Your task to perform on an android device: Open Chrome and go to settings Image 0: 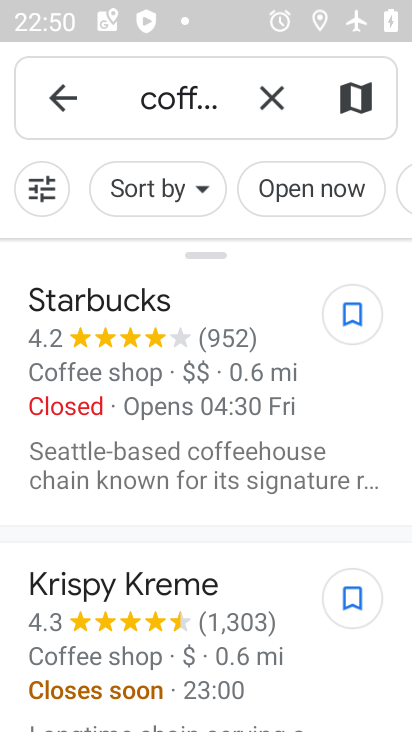
Step 0: press home button
Your task to perform on an android device: Open Chrome and go to settings Image 1: 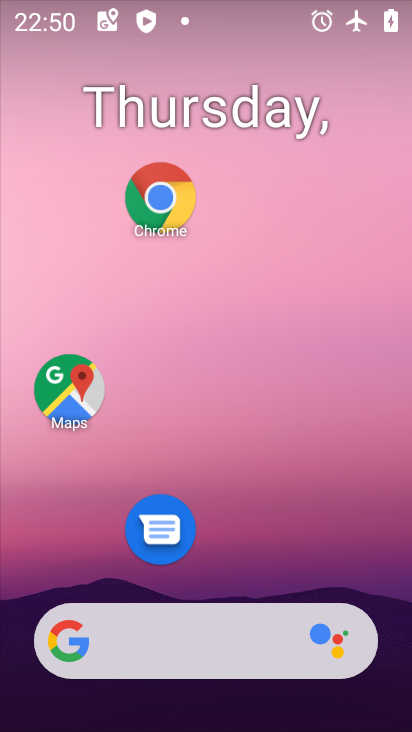
Step 1: click (161, 200)
Your task to perform on an android device: Open Chrome and go to settings Image 2: 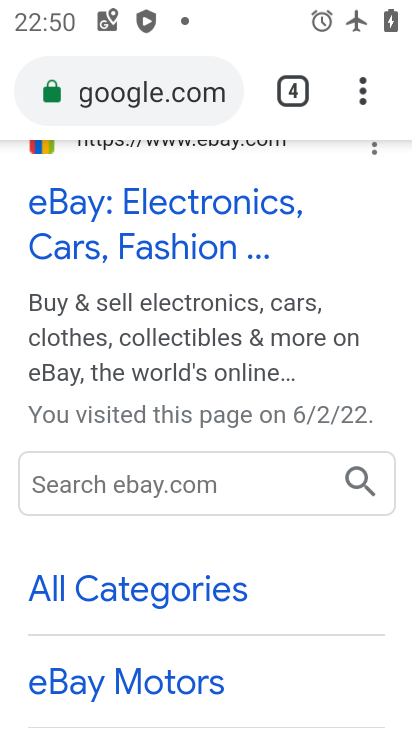
Step 2: click (359, 89)
Your task to perform on an android device: Open Chrome and go to settings Image 3: 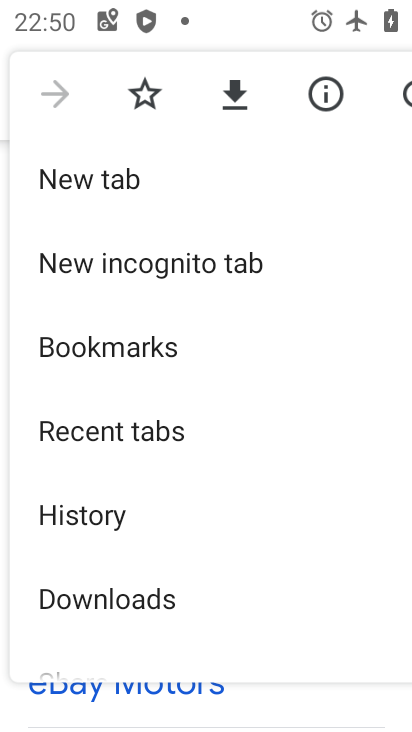
Step 3: drag from (237, 579) to (242, 197)
Your task to perform on an android device: Open Chrome and go to settings Image 4: 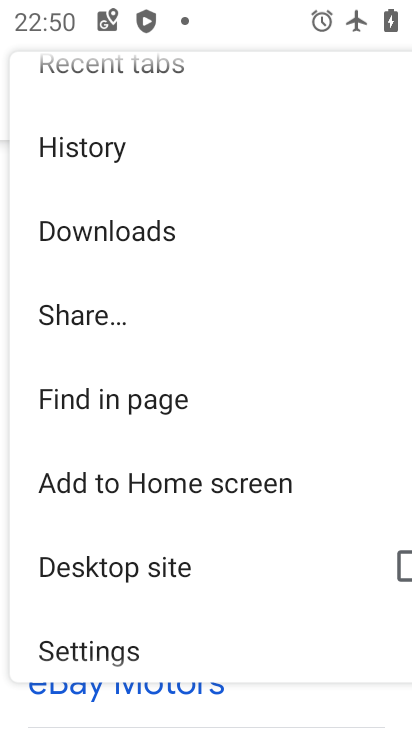
Step 4: click (82, 644)
Your task to perform on an android device: Open Chrome and go to settings Image 5: 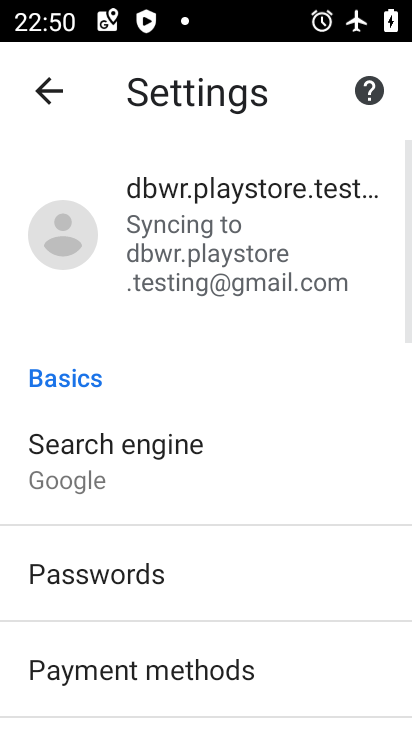
Step 5: task complete